Your task to perform on an android device: turn off javascript in the chrome app Image 0: 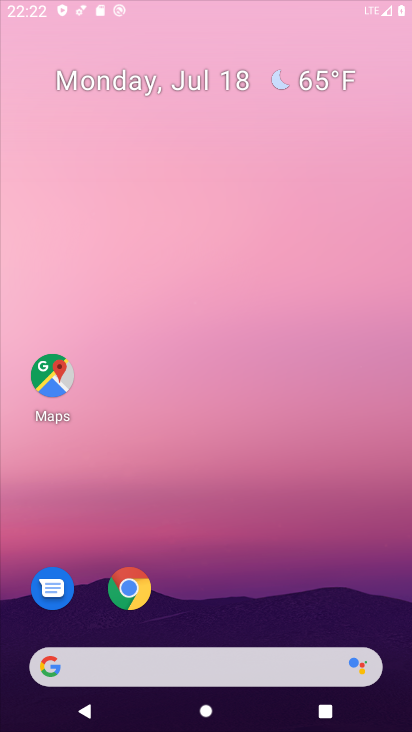
Step 0: press home button
Your task to perform on an android device: turn off javascript in the chrome app Image 1: 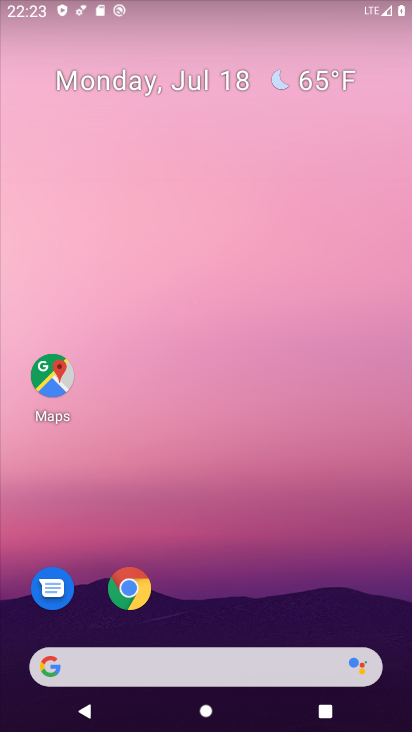
Step 1: click (222, 718)
Your task to perform on an android device: turn off javascript in the chrome app Image 2: 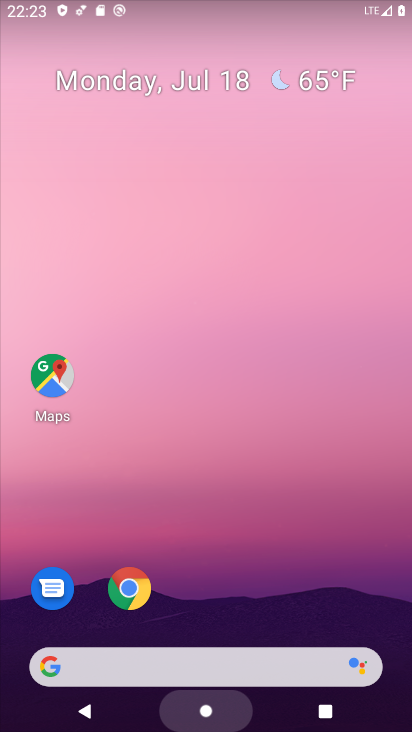
Step 2: click (137, 591)
Your task to perform on an android device: turn off javascript in the chrome app Image 3: 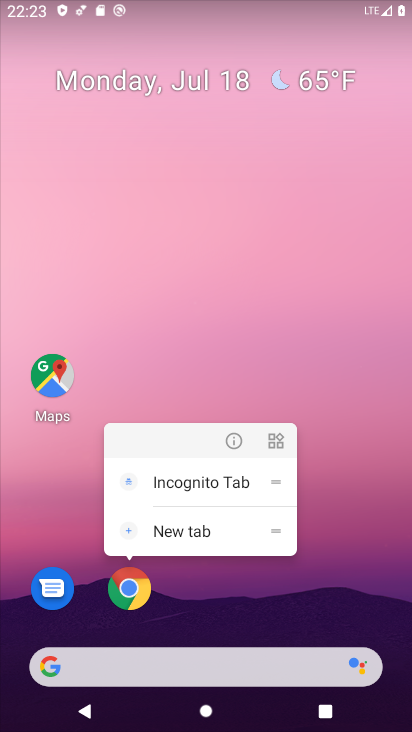
Step 3: click (129, 593)
Your task to perform on an android device: turn off javascript in the chrome app Image 4: 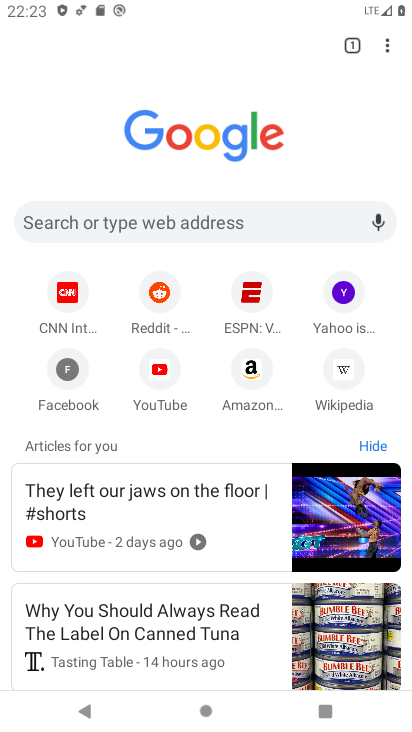
Step 4: drag from (383, 45) to (225, 386)
Your task to perform on an android device: turn off javascript in the chrome app Image 5: 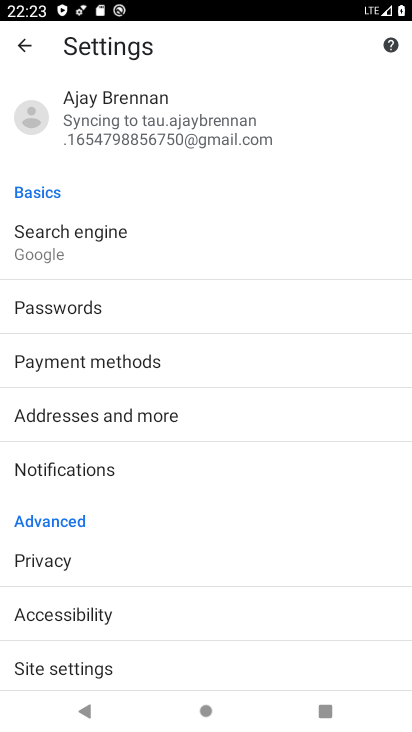
Step 5: click (56, 670)
Your task to perform on an android device: turn off javascript in the chrome app Image 6: 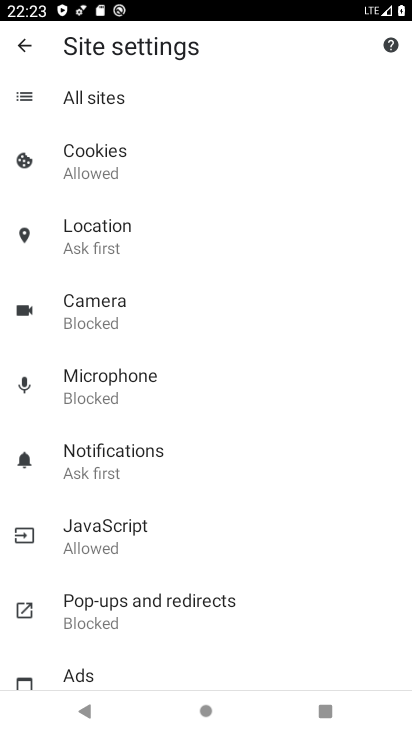
Step 6: click (73, 536)
Your task to perform on an android device: turn off javascript in the chrome app Image 7: 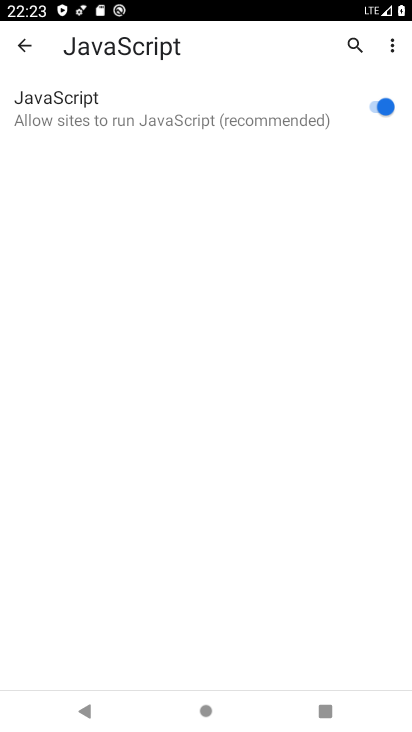
Step 7: click (379, 106)
Your task to perform on an android device: turn off javascript in the chrome app Image 8: 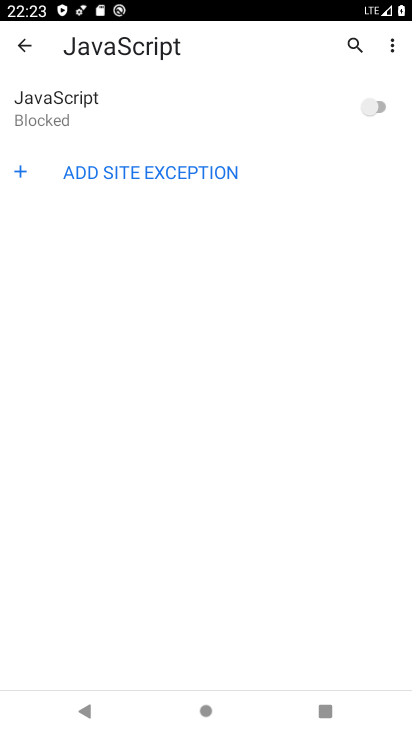
Step 8: task complete